Your task to perform on an android device: turn on sleep mode Image 0: 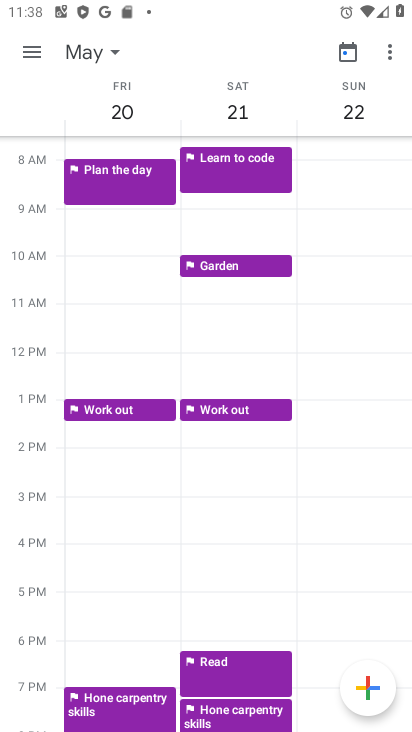
Step 0: press home button
Your task to perform on an android device: turn on sleep mode Image 1: 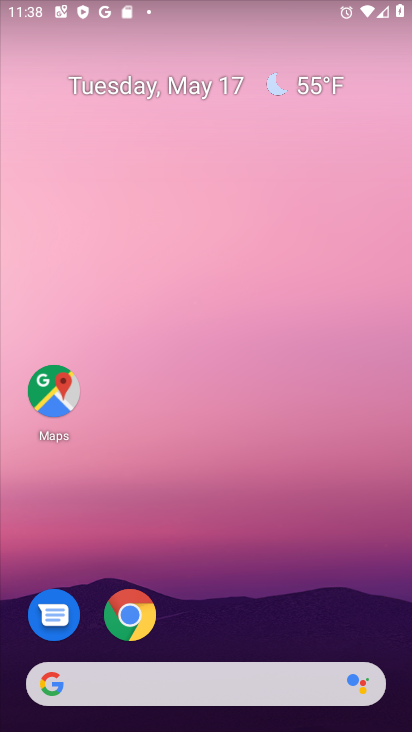
Step 1: drag from (292, 588) to (350, 82)
Your task to perform on an android device: turn on sleep mode Image 2: 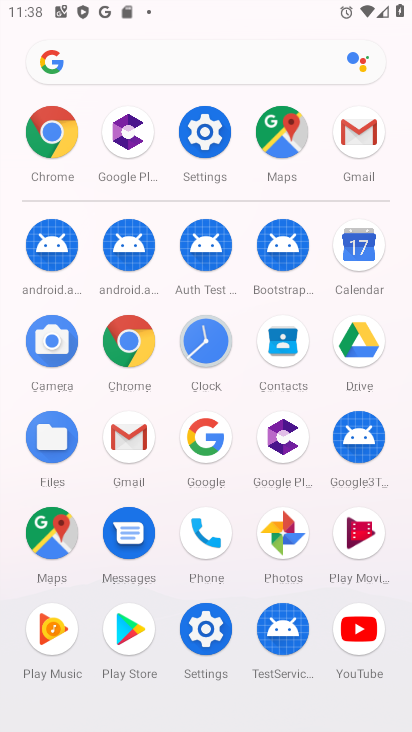
Step 2: click (199, 125)
Your task to perform on an android device: turn on sleep mode Image 3: 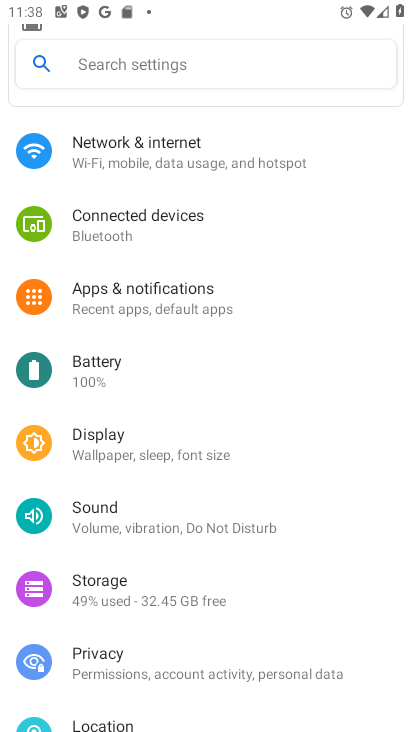
Step 3: drag from (132, 621) to (189, 458)
Your task to perform on an android device: turn on sleep mode Image 4: 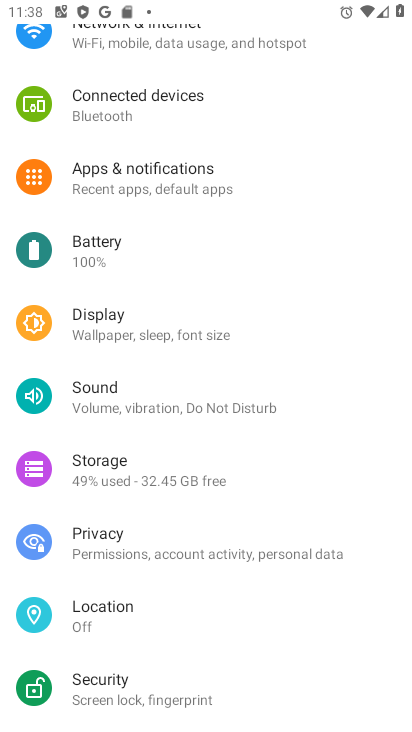
Step 4: click (158, 332)
Your task to perform on an android device: turn on sleep mode Image 5: 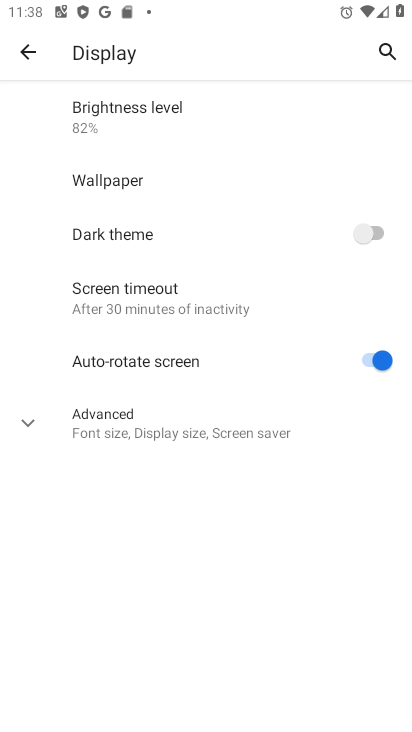
Step 5: click (146, 307)
Your task to perform on an android device: turn on sleep mode Image 6: 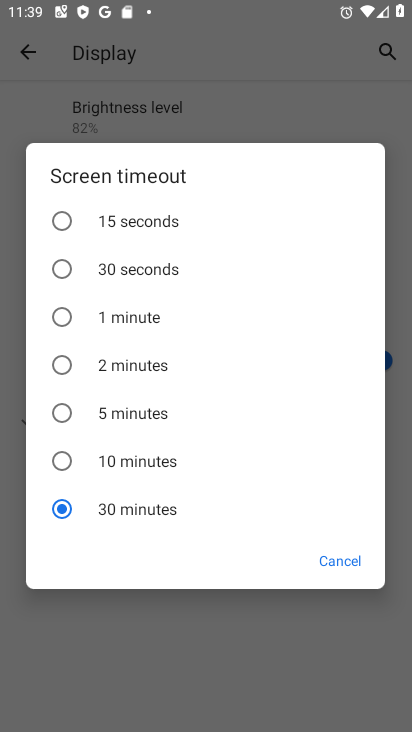
Step 6: task complete